Your task to perform on an android device: refresh tabs in the chrome app Image 0: 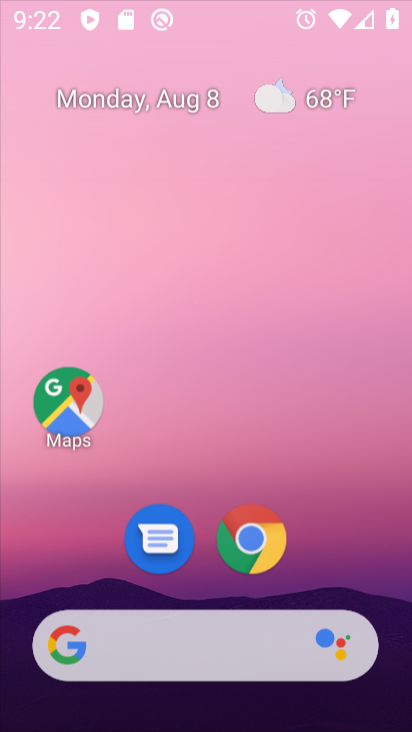
Step 0: press home button
Your task to perform on an android device: refresh tabs in the chrome app Image 1: 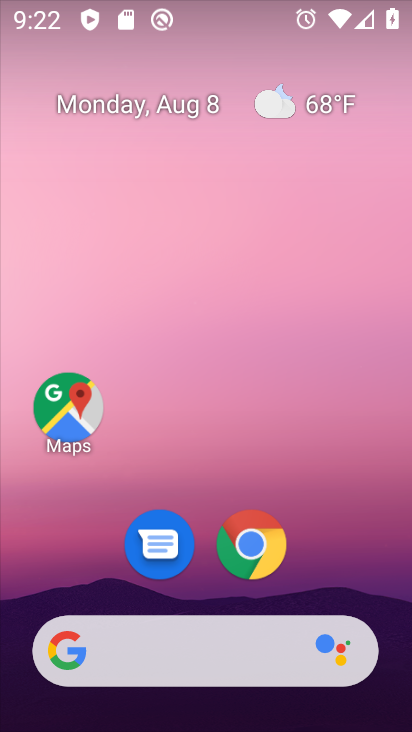
Step 1: drag from (324, 581) to (303, 63)
Your task to perform on an android device: refresh tabs in the chrome app Image 2: 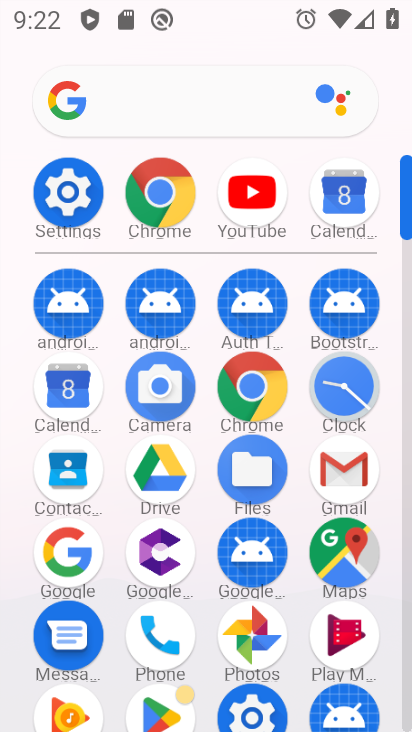
Step 2: click (155, 184)
Your task to perform on an android device: refresh tabs in the chrome app Image 3: 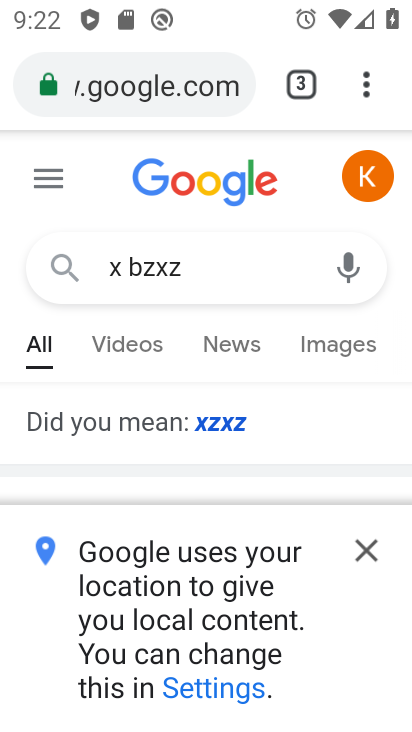
Step 3: click (360, 78)
Your task to perform on an android device: refresh tabs in the chrome app Image 4: 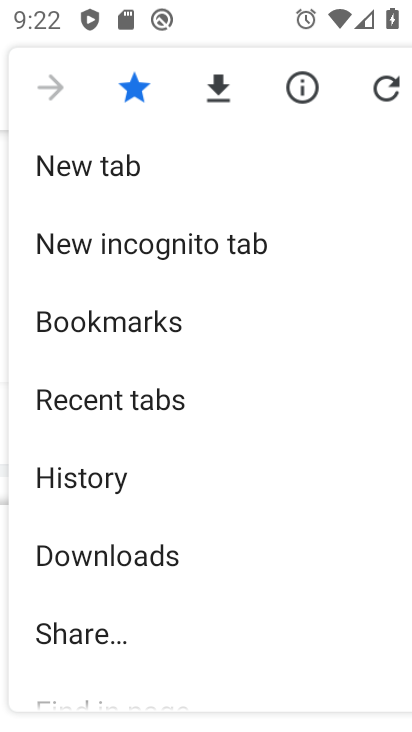
Step 4: click (380, 86)
Your task to perform on an android device: refresh tabs in the chrome app Image 5: 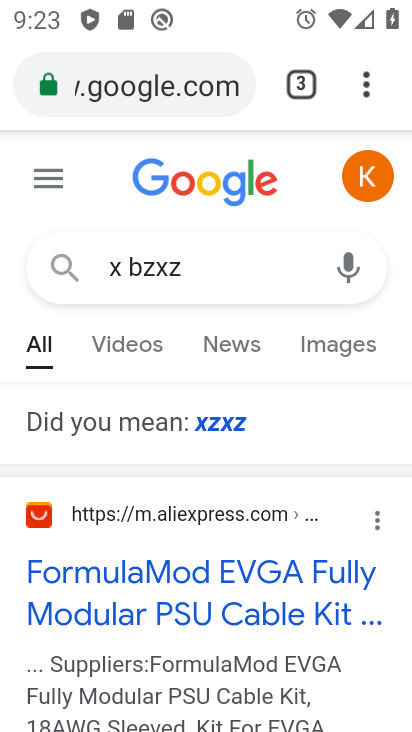
Step 5: task complete